Your task to perform on an android device: Open Amazon Image 0: 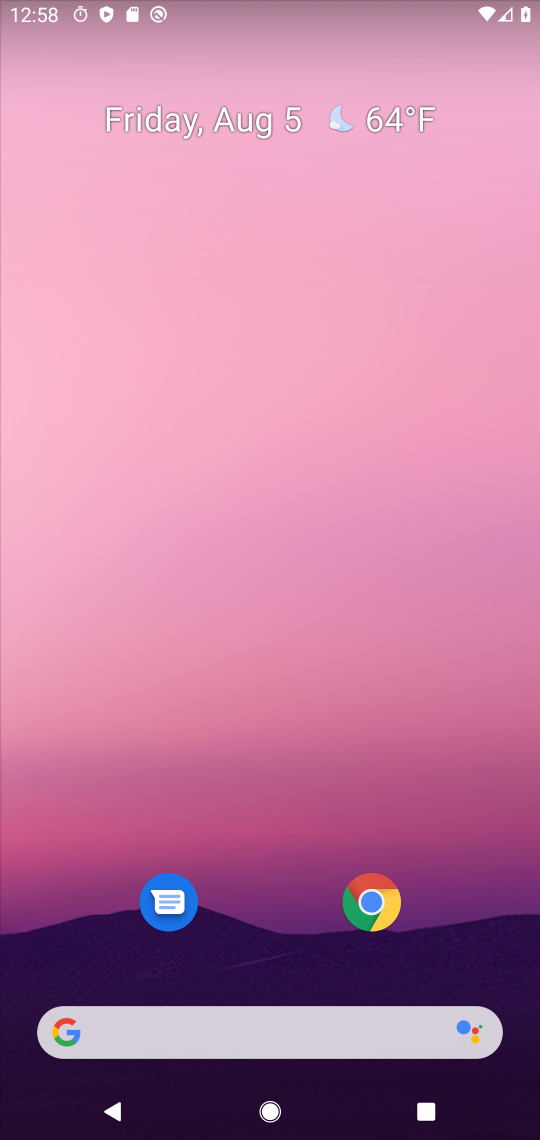
Step 0: press home button
Your task to perform on an android device: Open Amazon Image 1: 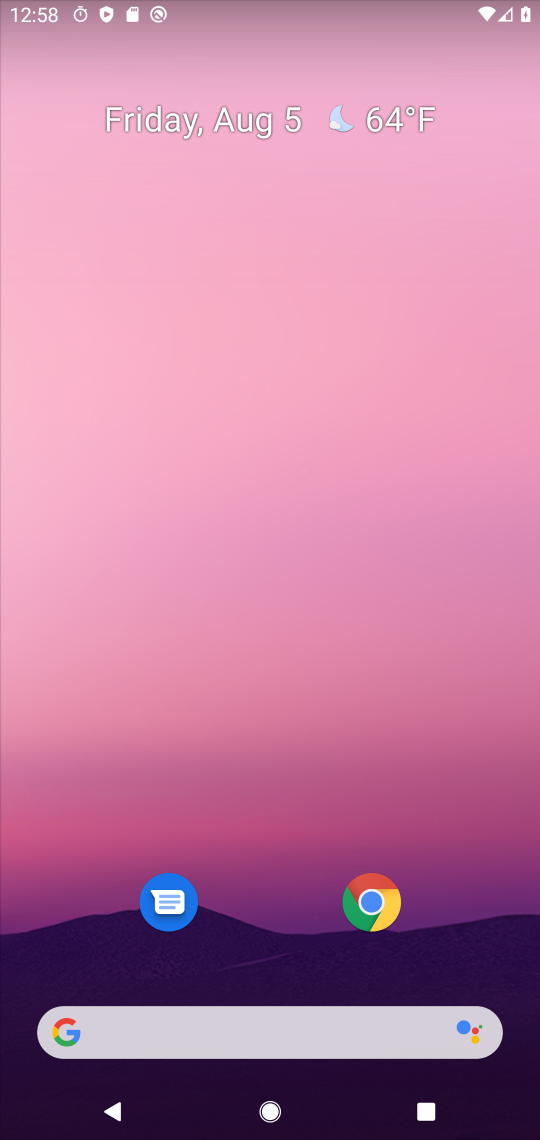
Step 1: drag from (401, 666) to (389, 443)
Your task to perform on an android device: Open Amazon Image 2: 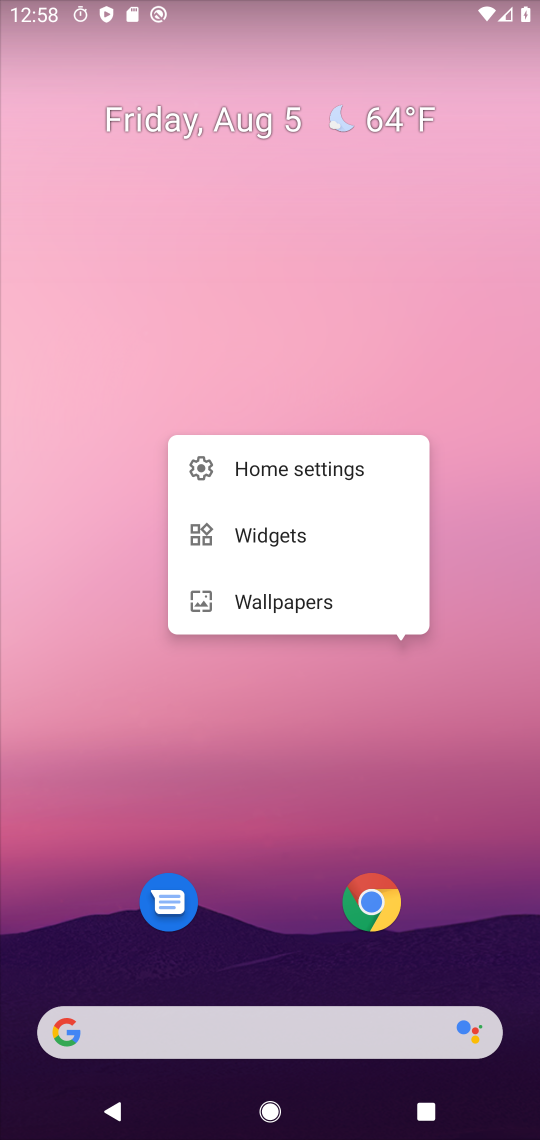
Step 2: click (330, 714)
Your task to perform on an android device: Open Amazon Image 3: 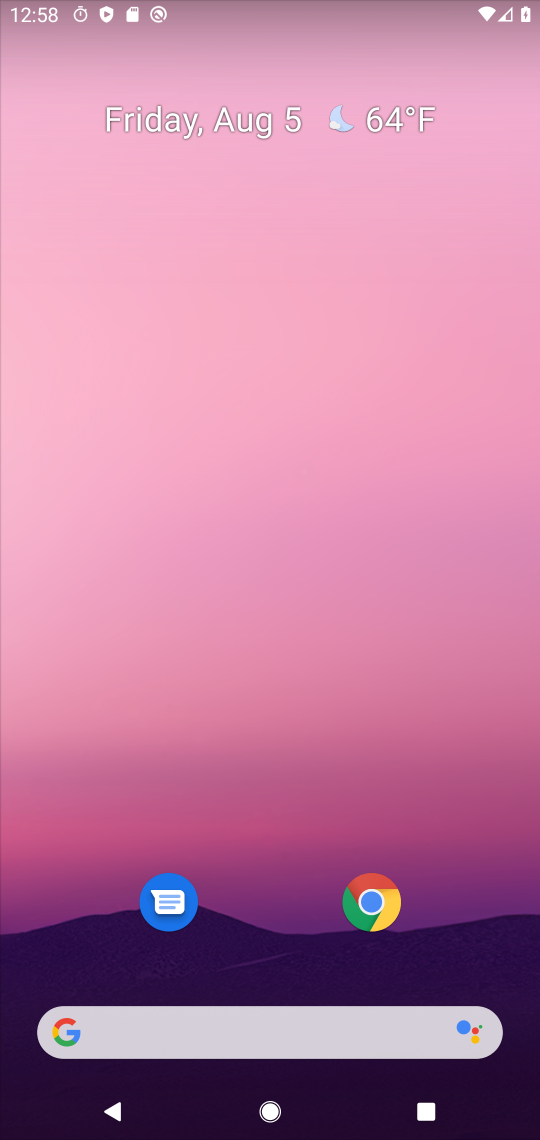
Step 3: drag from (298, 1064) to (236, 454)
Your task to perform on an android device: Open Amazon Image 4: 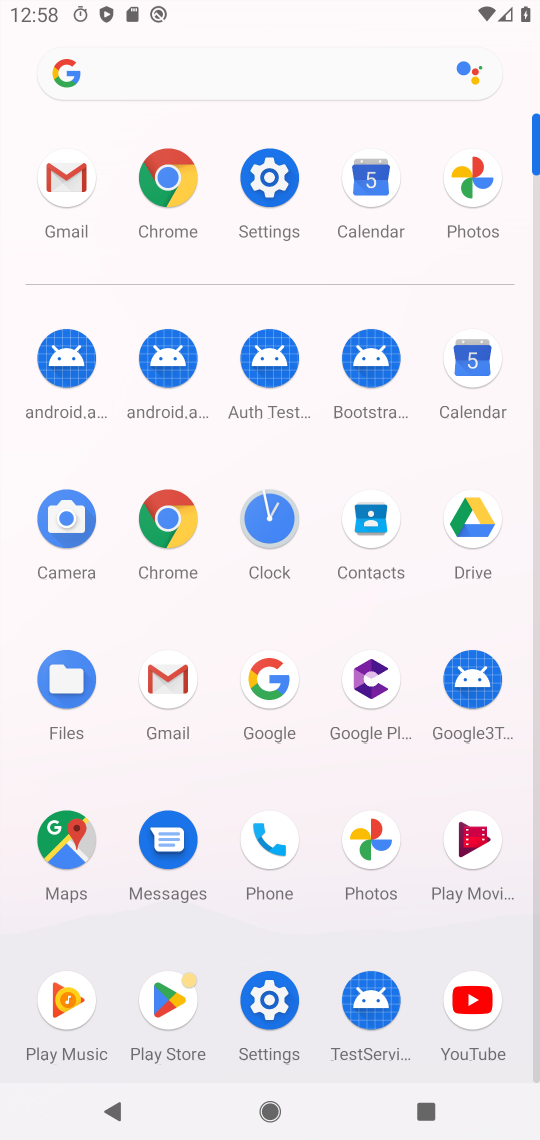
Step 4: click (144, 165)
Your task to perform on an android device: Open Amazon Image 5: 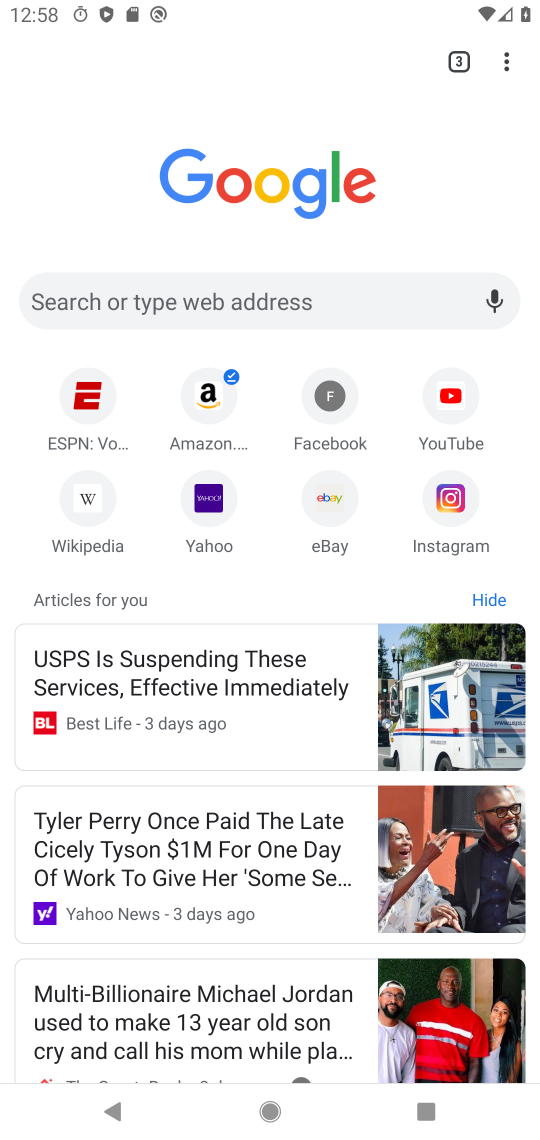
Step 5: click (187, 394)
Your task to perform on an android device: Open Amazon Image 6: 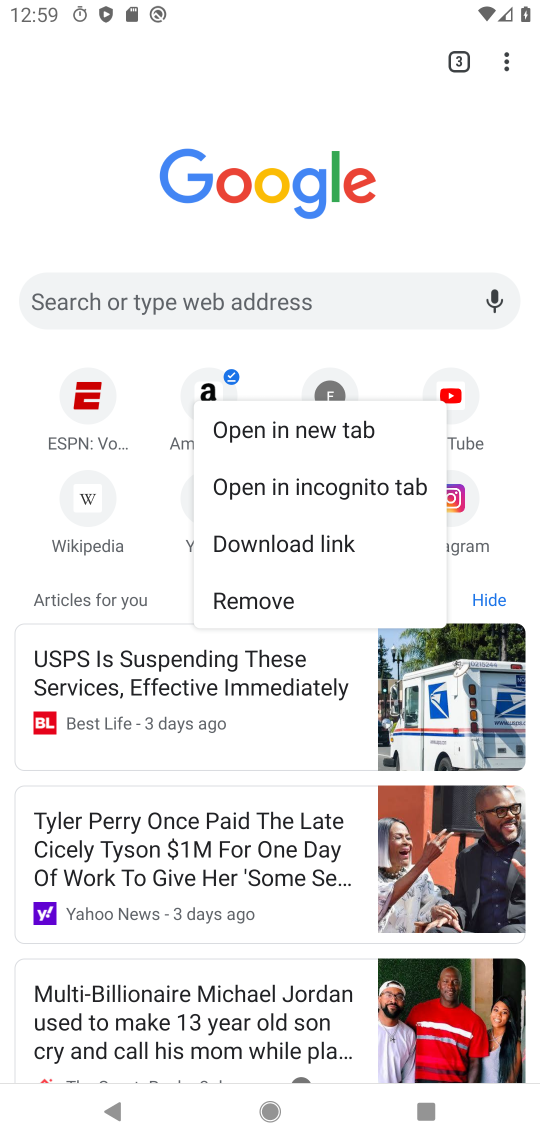
Step 6: click (191, 392)
Your task to perform on an android device: Open Amazon Image 7: 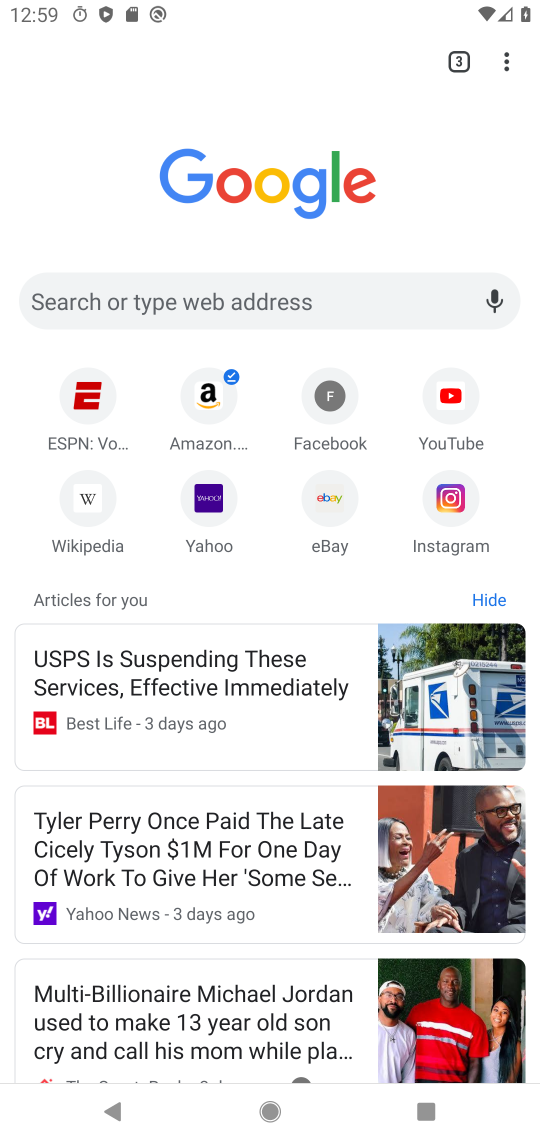
Step 7: click (209, 396)
Your task to perform on an android device: Open Amazon Image 8: 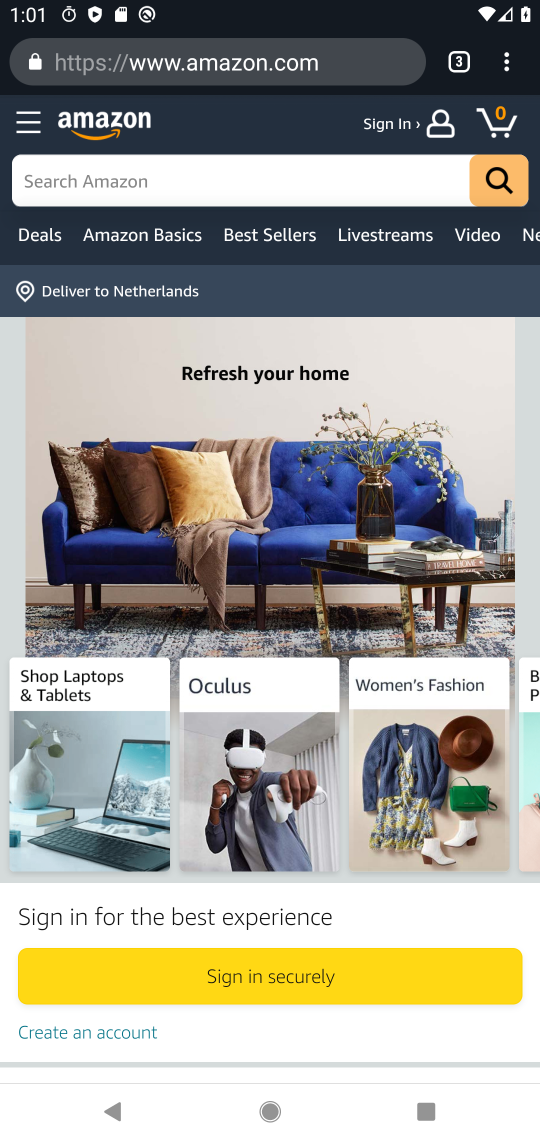
Step 8: task complete